Your task to perform on an android device: When is my next appointment? Image 0: 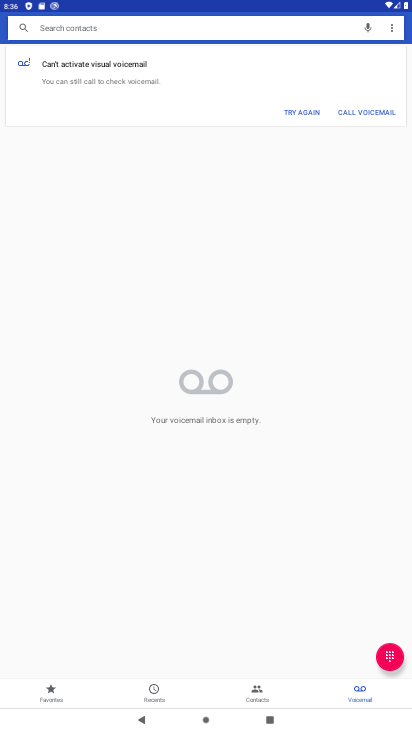
Step 0: press home button
Your task to perform on an android device: When is my next appointment? Image 1: 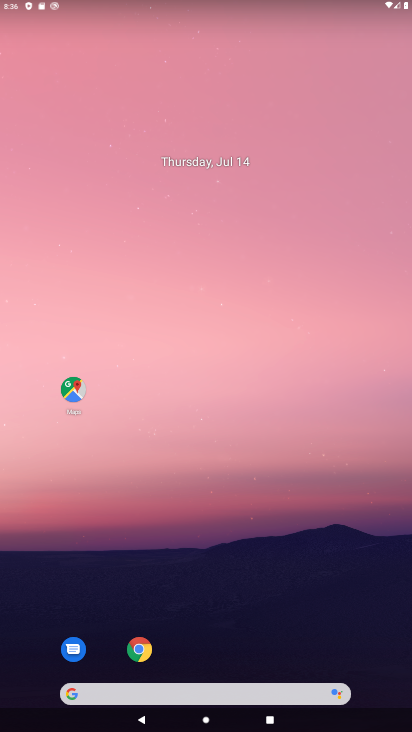
Step 1: drag from (188, 653) to (166, 82)
Your task to perform on an android device: When is my next appointment? Image 2: 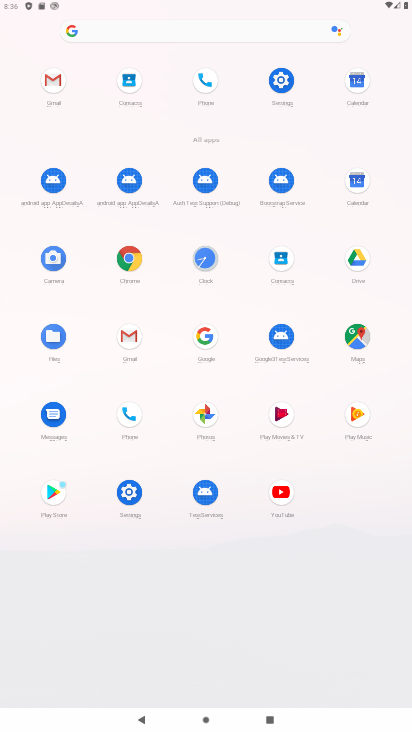
Step 2: click (357, 195)
Your task to perform on an android device: When is my next appointment? Image 3: 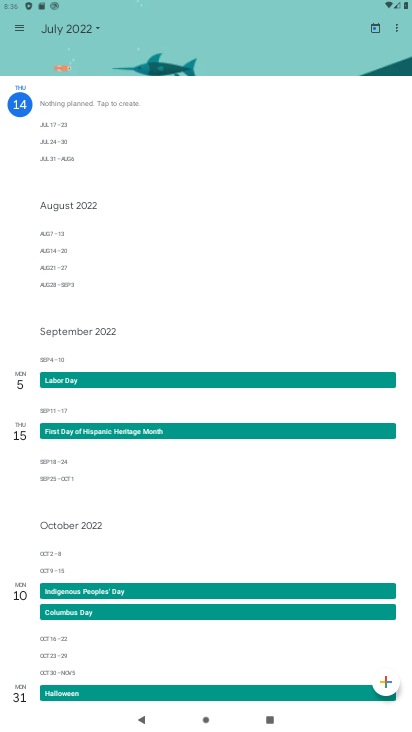
Step 3: task complete